Your task to perform on an android device: turn on the 24-hour format for clock Image 0: 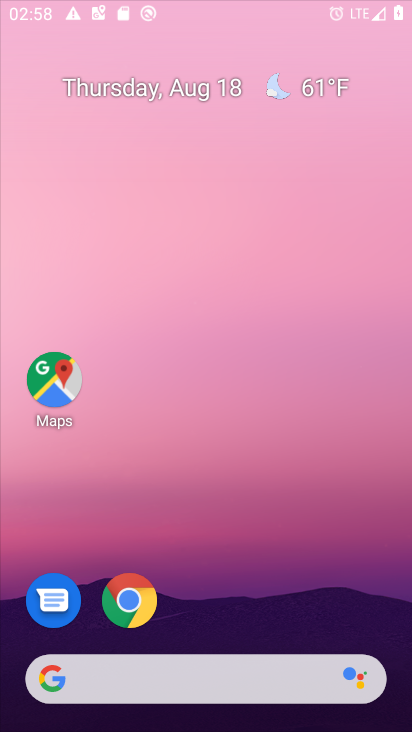
Step 0: press home button
Your task to perform on an android device: turn on the 24-hour format for clock Image 1: 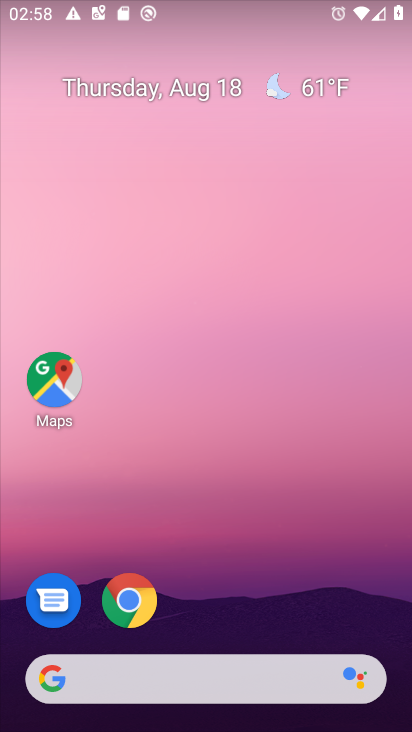
Step 1: click (408, 324)
Your task to perform on an android device: turn on the 24-hour format for clock Image 2: 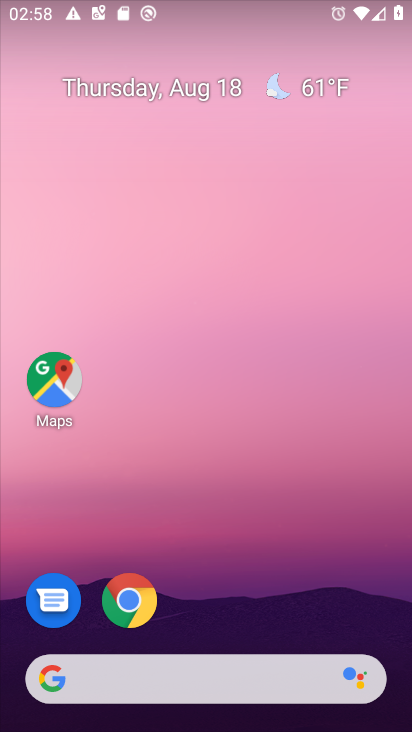
Step 2: drag from (198, 621) to (323, 12)
Your task to perform on an android device: turn on the 24-hour format for clock Image 3: 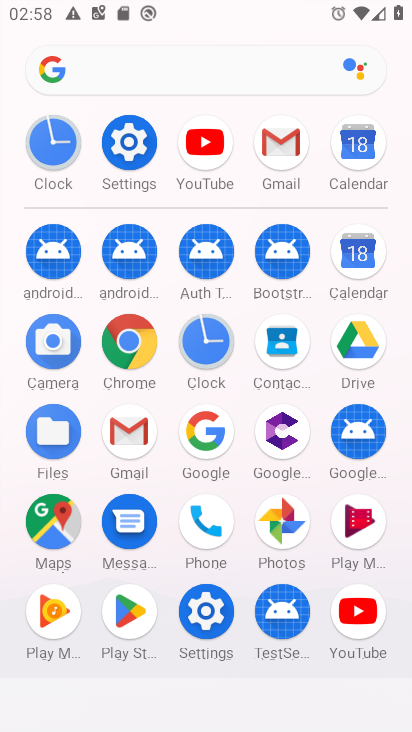
Step 3: click (117, 138)
Your task to perform on an android device: turn on the 24-hour format for clock Image 4: 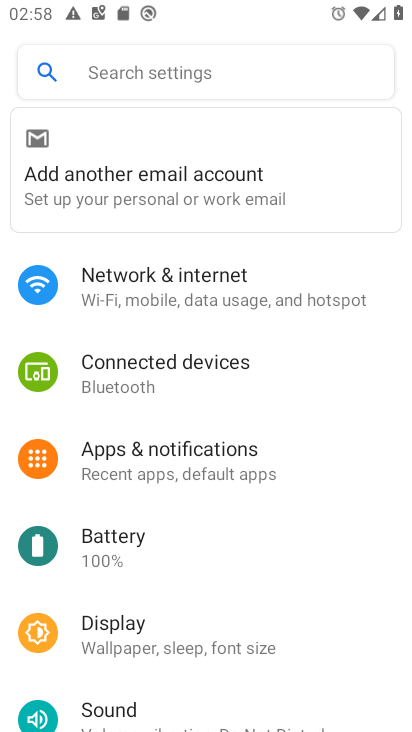
Step 4: drag from (256, 606) to (287, 76)
Your task to perform on an android device: turn on the 24-hour format for clock Image 5: 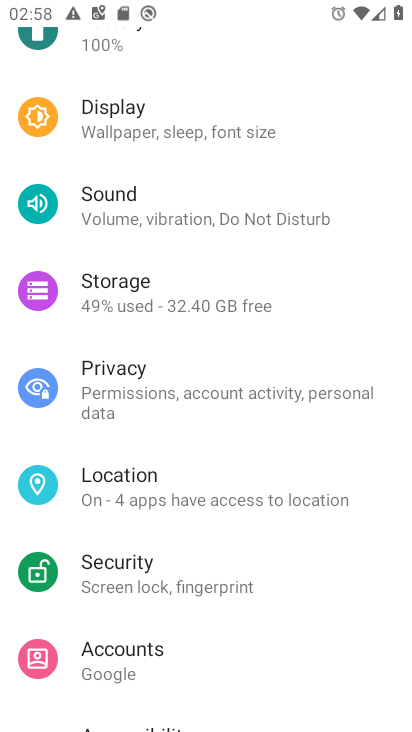
Step 5: drag from (169, 658) to (193, 295)
Your task to perform on an android device: turn on the 24-hour format for clock Image 6: 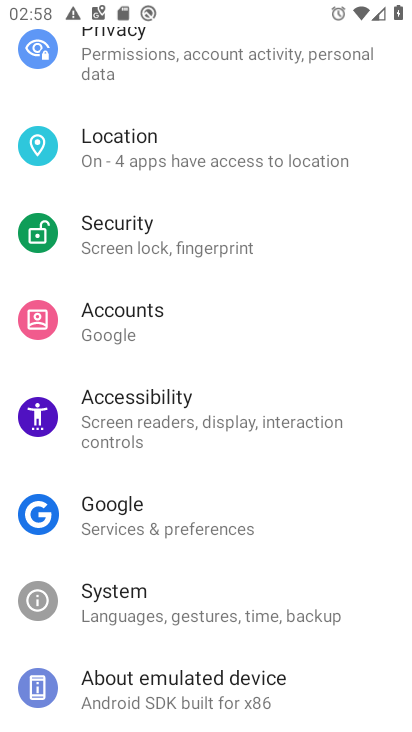
Step 6: click (110, 609)
Your task to perform on an android device: turn on the 24-hour format for clock Image 7: 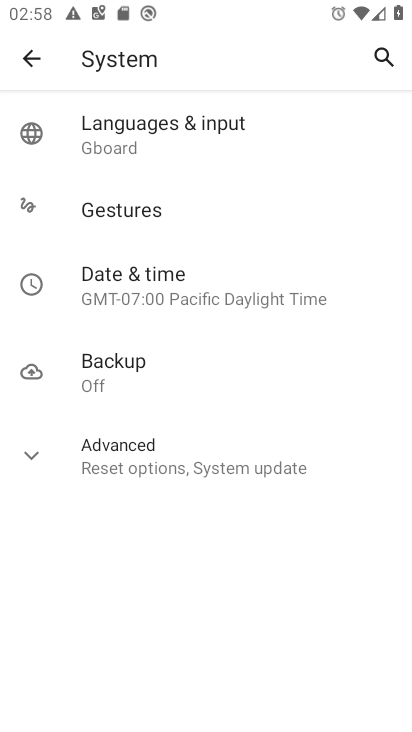
Step 7: click (155, 295)
Your task to perform on an android device: turn on the 24-hour format for clock Image 8: 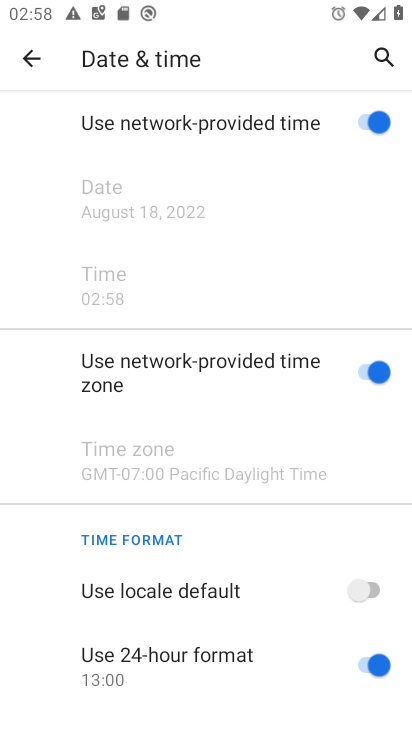
Step 8: task complete